Your task to perform on an android device: Turn off the flashlight Image 0: 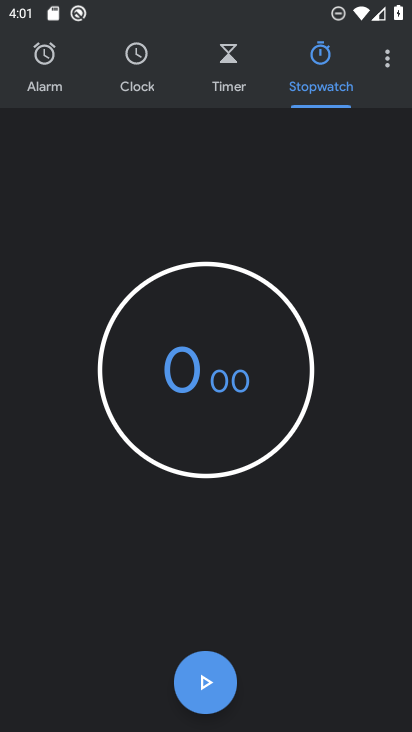
Step 0: press back button
Your task to perform on an android device: Turn off the flashlight Image 1: 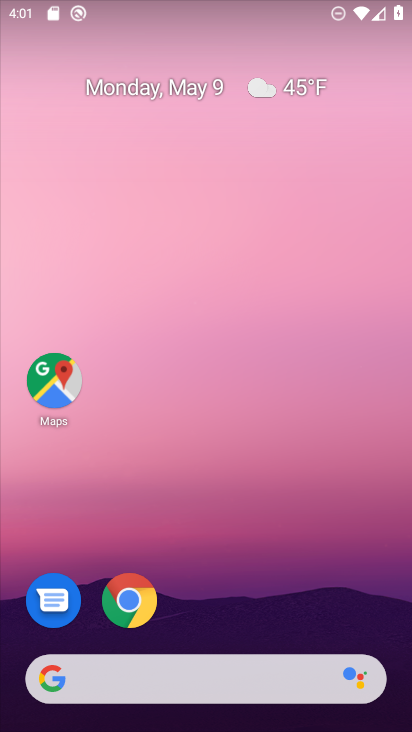
Step 1: drag from (272, 577) to (259, 20)
Your task to perform on an android device: Turn off the flashlight Image 2: 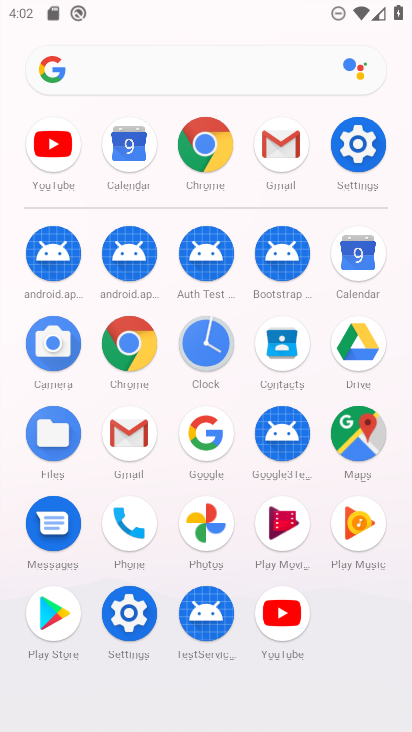
Step 2: click (124, 612)
Your task to perform on an android device: Turn off the flashlight Image 3: 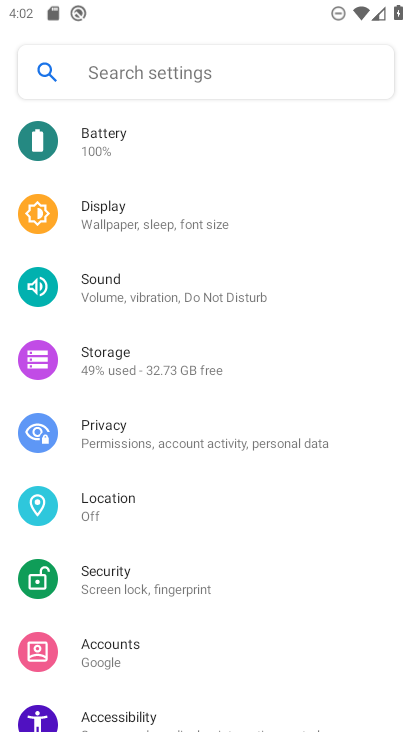
Step 3: drag from (224, 227) to (256, 472)
Your task to perform on an android device: Turn off the flashlight Image 4: 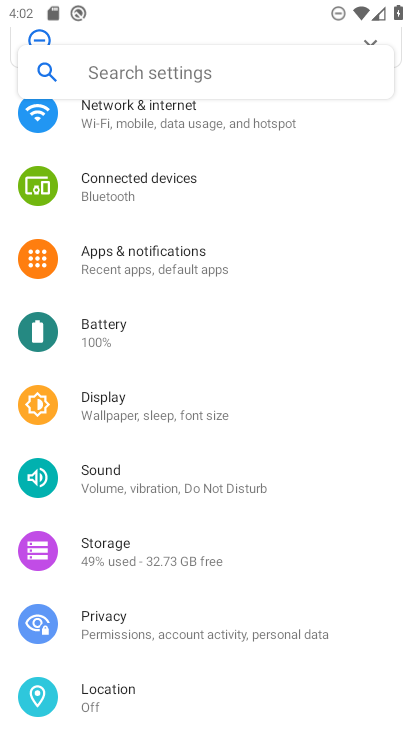
Step 4: drag from (236, 183) to (231, 479)
Your task to perform on an android device: Turn off the flashlight Image 5: 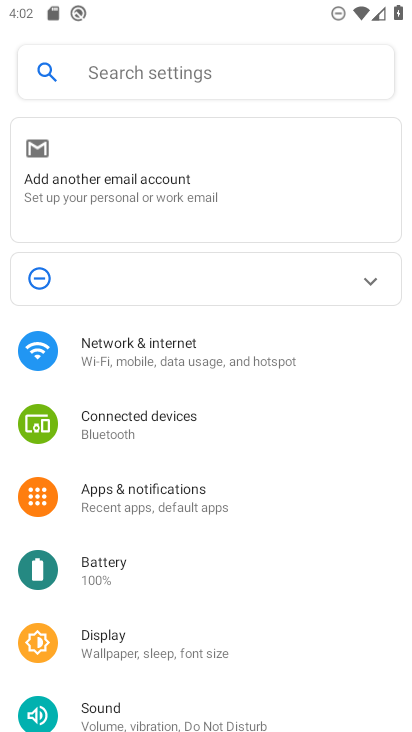
Step 5: drag from (212, 612) to (241, 309)
Your task to perform on an android device: Turn off the flashlight Image 6: 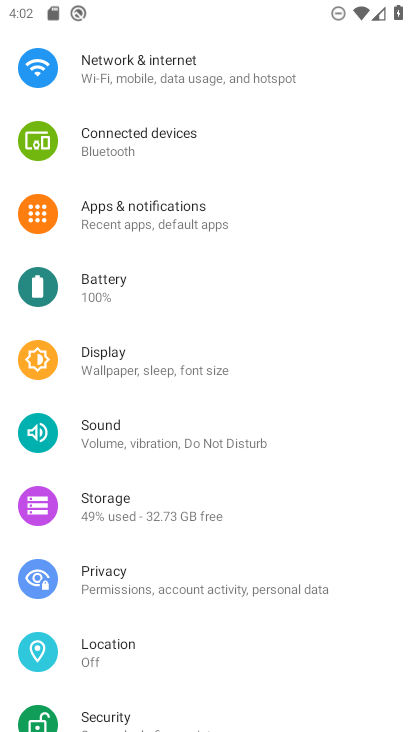
Step 6: drag from (257, 625) to (265, 252)
Your task to perform on an android device: Turn off the flashlight Image 7: 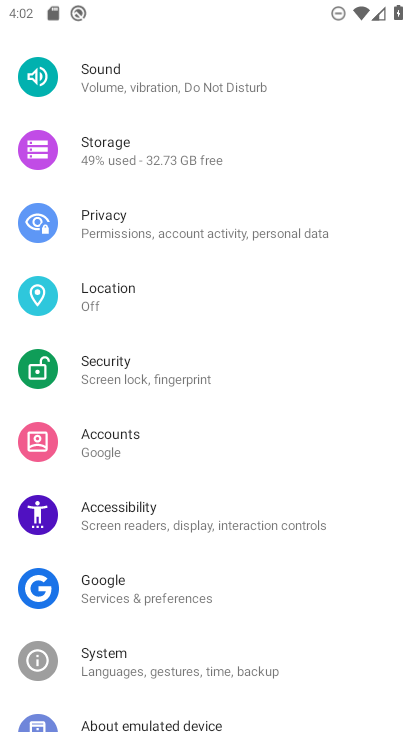
Step 7: drag from (252, 154) to (252, 607)
Your task to perform on an android device: Turn off the flashlight Image 8: 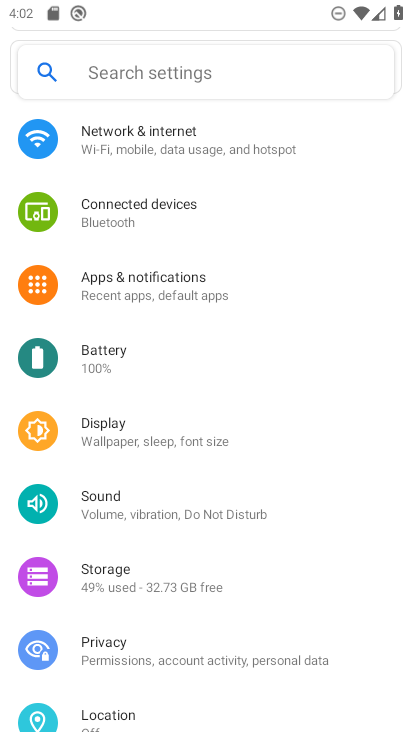
Step 8: drag from (223, 167) to (239, 542)
Your task to perform on an android device: Turn off the flashlight Image 9: 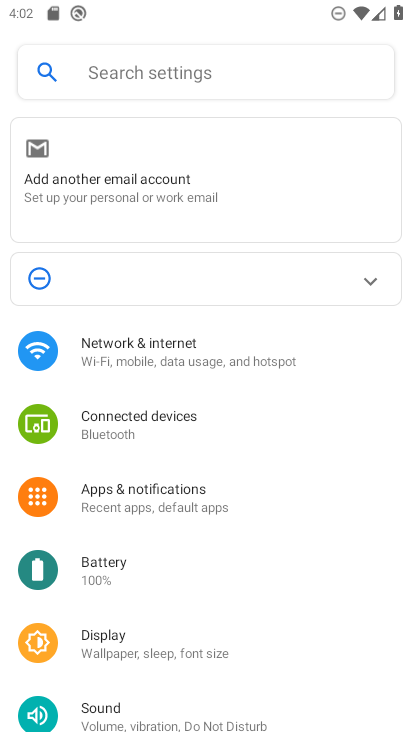
Step 9: click (213, 369)
Your task to perform on an android device: Turn off the flashlight Image 10: 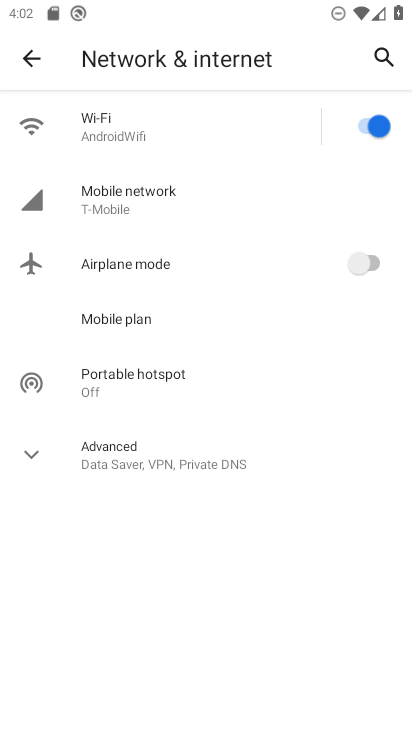
Step 10: click (39, 454)
Your task to perform on an android device: Turn off the flashlight Image 11: 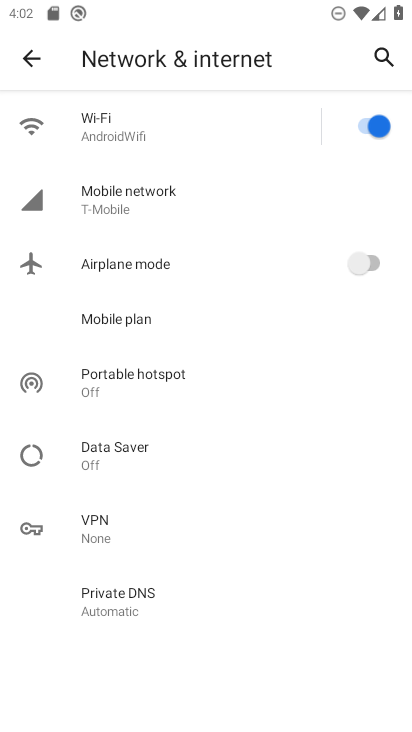
Step 11: task complete